Your task to perform on an android device: Open settings Image 0: 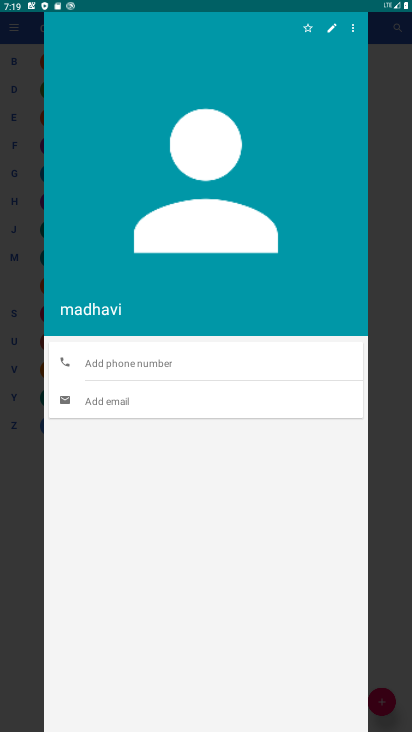
Step 0: press home button
Your task to perform on an android device: Open settings Image 1: 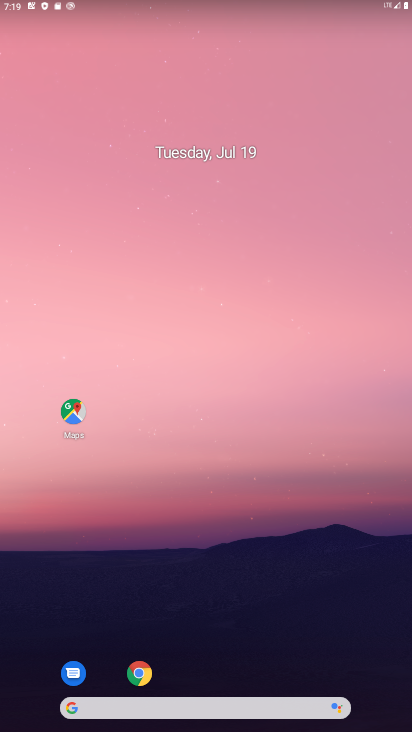
Step 1: drag from (335, 525) to (330, 20)
Your task to perform on an android device: Open settings Image 2: 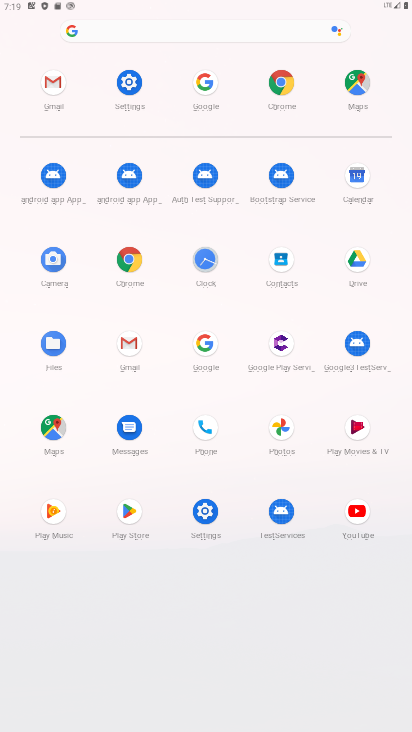
Step 2: click (200, 518)
Your task to perform on an android device: Open settings Image 3: 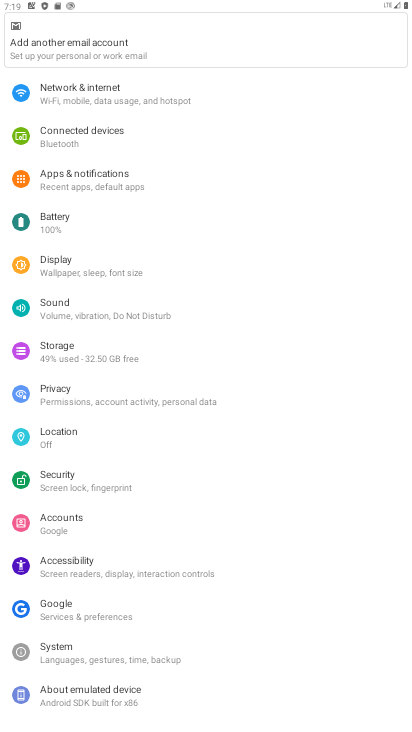
Step 3: task complete